Your task to perform on an android device: Go to Wikipedia Image 0: 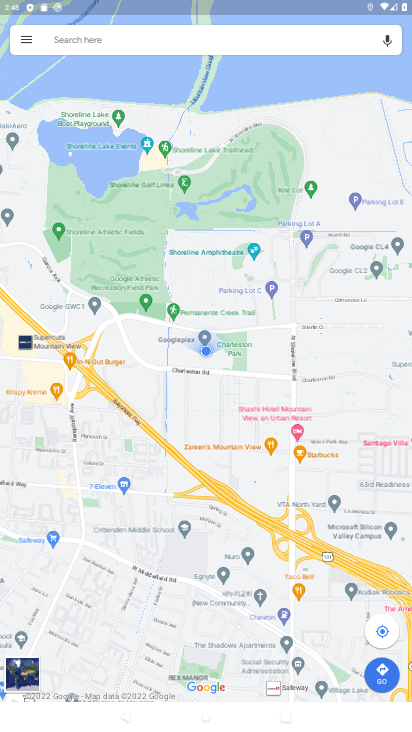
Step 0: drag from (186, 588) to (350, 249)
Your task to perform on an android device: Go to Wikipedia Image 1: 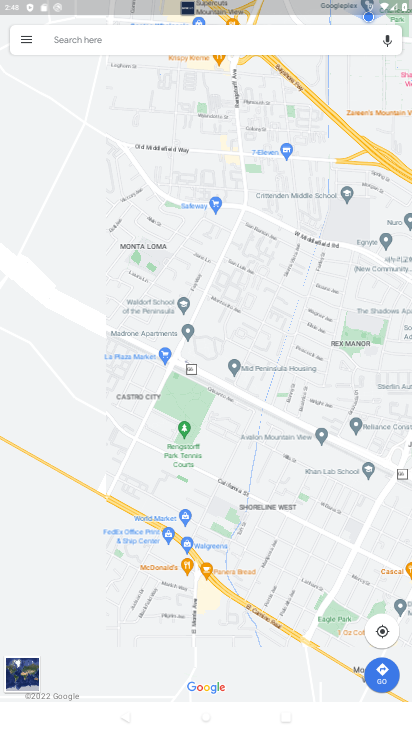
Step 1: press home button
Your task to perform on an android device: Go to Wikipedia Image 2: 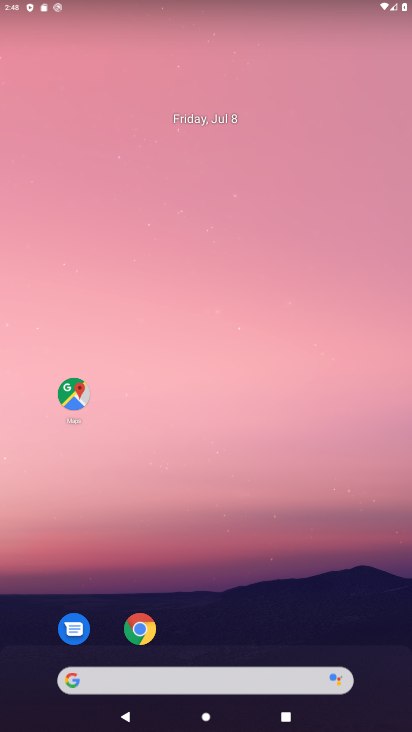
Step 2: drag from (196, 634) to (272, 559)
Your task to perform on an android device: Go to Wikipedia Image 3: 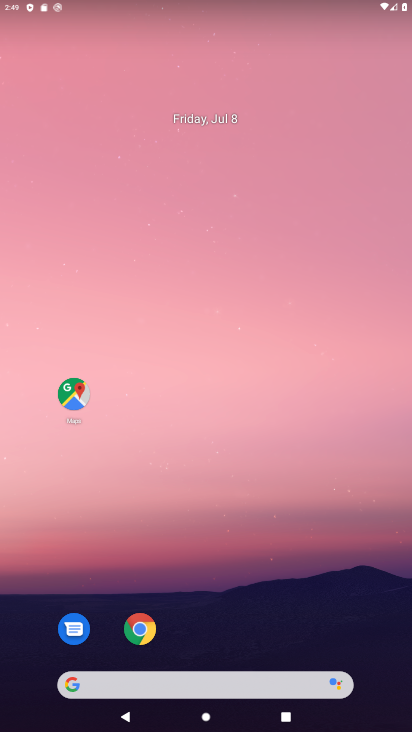
Step 3: drag from (201, 619) to (202, 274)
Your task to perform on an android device: Go to Wikipedia Image 4: 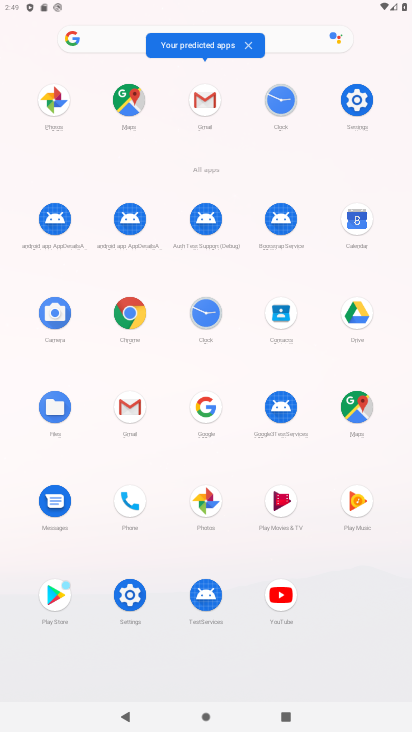
Step 4: click (134, 309)
Your task to perform on an android device: Go to Wikipedia Image 5: 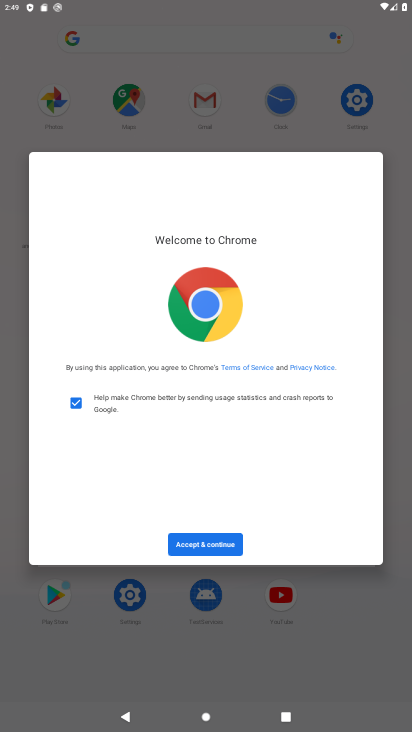
Step 5: click (208, 549)
Your task to perform on an android device: Go to Wikipedia Image 6: 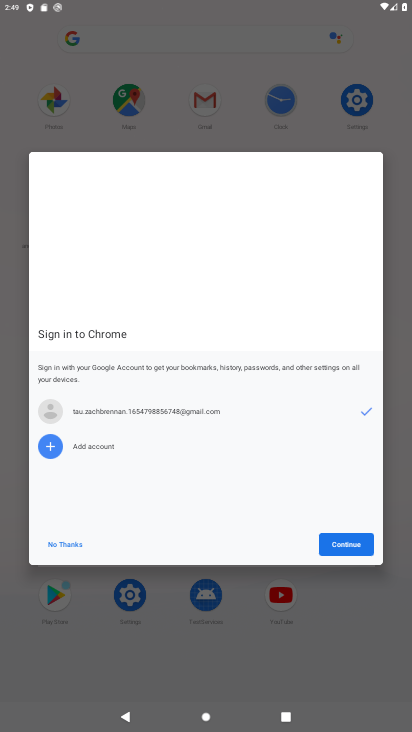
Step 6: click (59, 545)
Your task to perform on an android device: Go to Wikipedia Image 7: 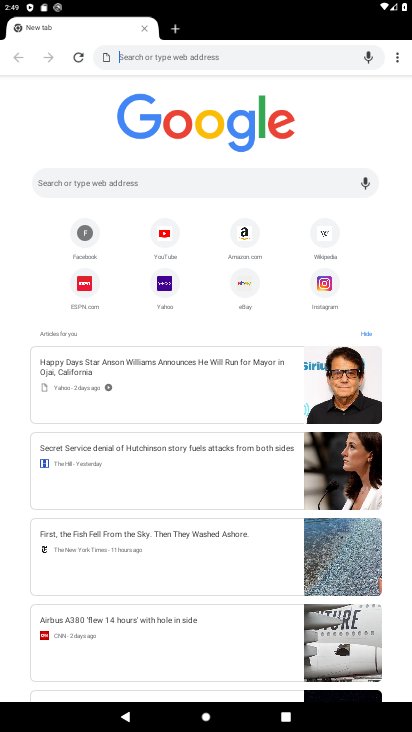
Step 7: click (166, 58)
Your task to perform on an android device: Go to Wikipedia Image 8: 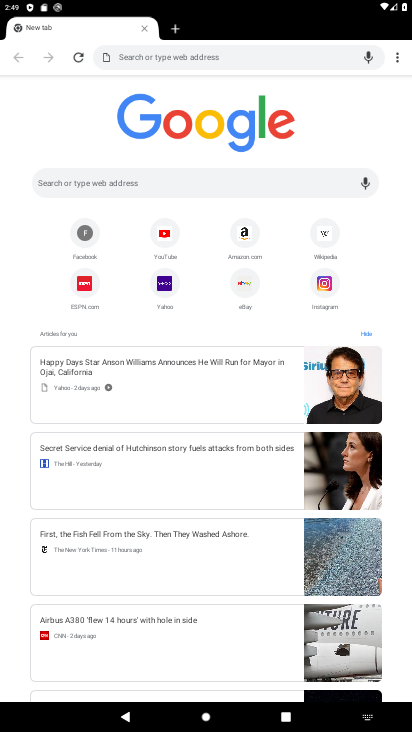
Step 8: click (146, 172)
Your task to perform on an android device: Go to Wikipedia Image 9: 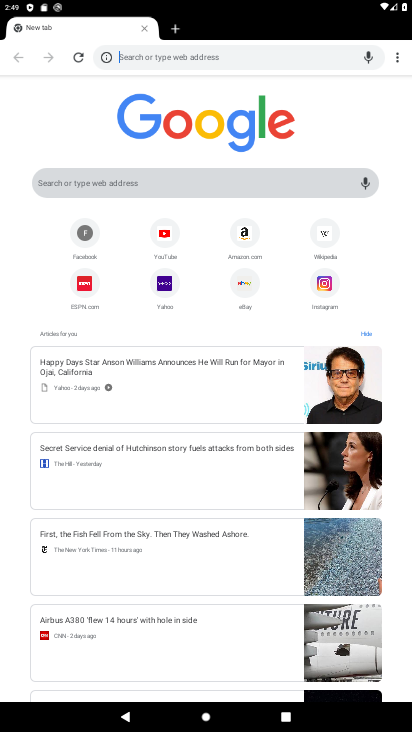
Step 9: click (123, 181)
Your task to perform on an android device: Go to Wikipedia Image 10: 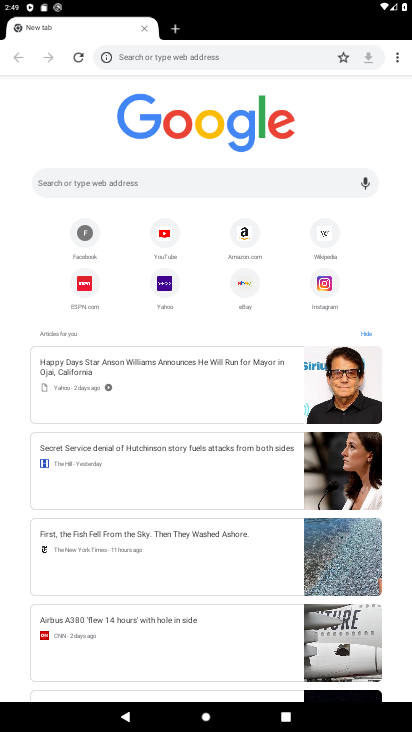
Step 10: click (324, 243)
Your task to perform on an android device: Go to Wikipedia Image 11: 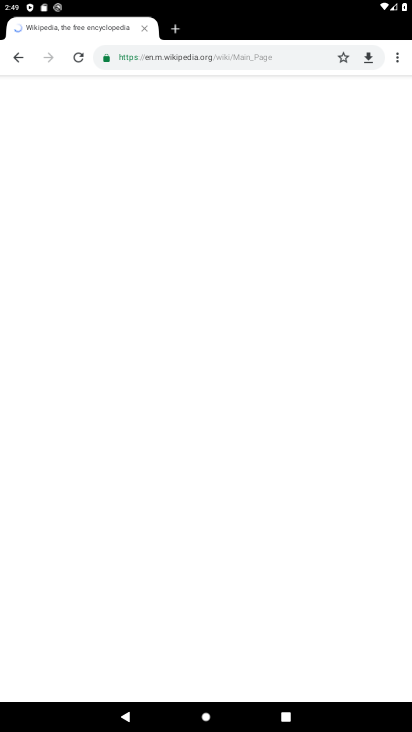
Step 11: task complete